Your task to perform on an android device: Go to battery settings Image 0: 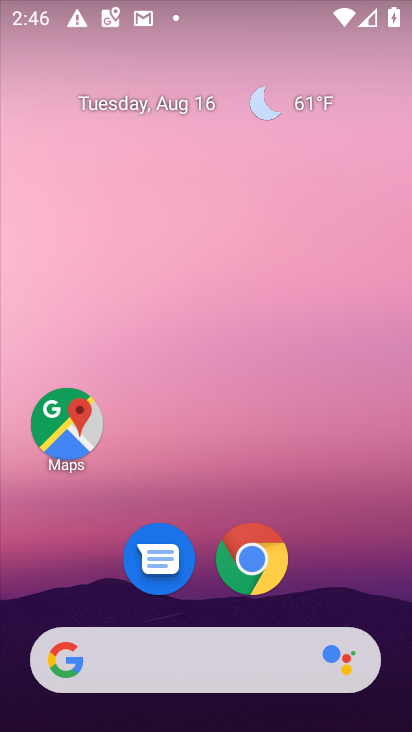
Step 0: drag from (364, 603) to (375, 135)
Your task to perform on an android device: Go to battery settings Image 1: 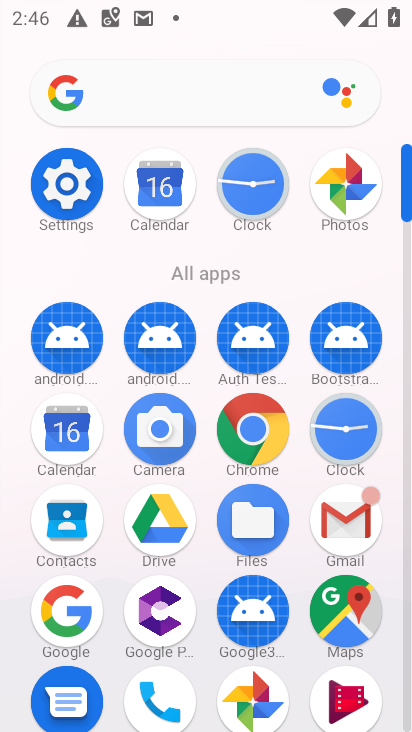
Step 1: click (407, 712)
Your task to perform on an android device: Go to battery settings Image 2: 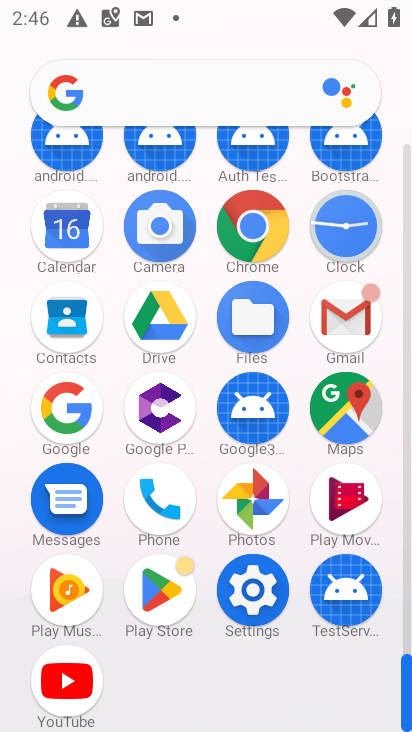
Step 2: click (254, 589)
Your task to perform on an android device: Go to battery settings Image 3: 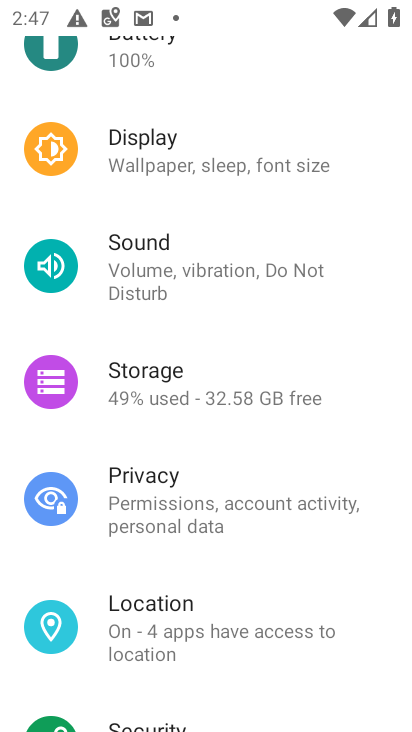
Step 3: drag from (344, 187) to (309, 415)
Your task to perform on an android device: Go to battery settings Image 4: 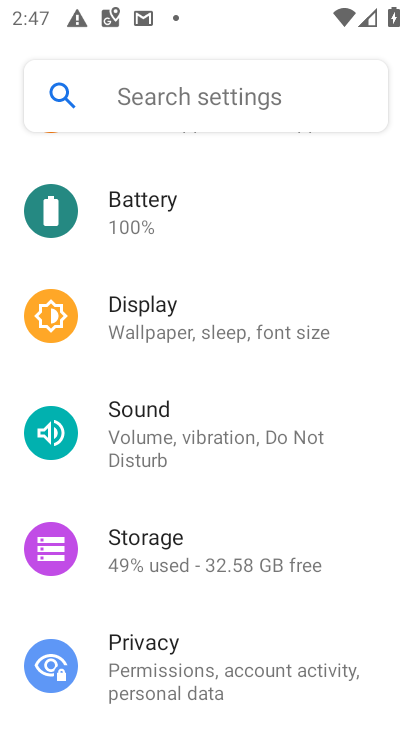
Step 4: click (136, 202)
Your task to perform on an android device: Go to battery settings Image 5: 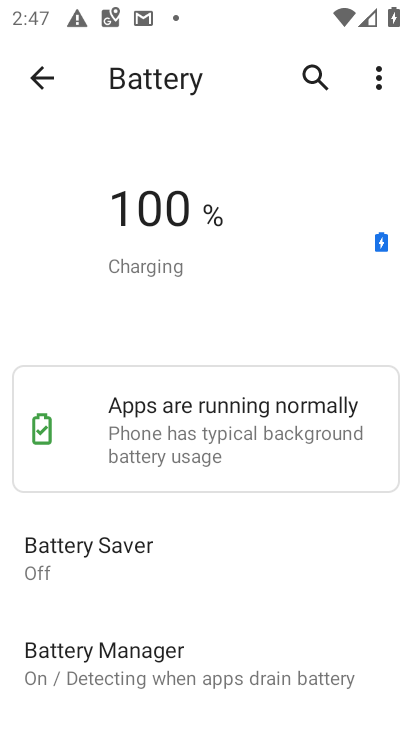
Step 5: task complete